Your task to perform on an android device: Add duracell triple a to the cart on bestbuy, then select checkout. Image 0: 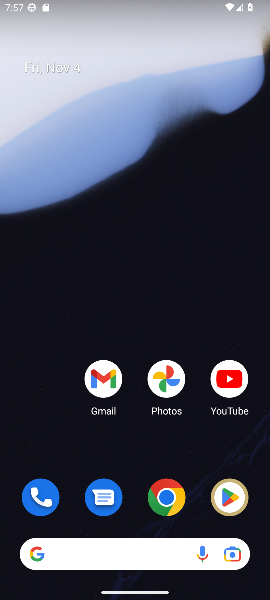
Step 0: click (168, 509)
Your task to perform on an android device: Add duracell triple a to the cart on bestbuy, then select checkout. Image 1: 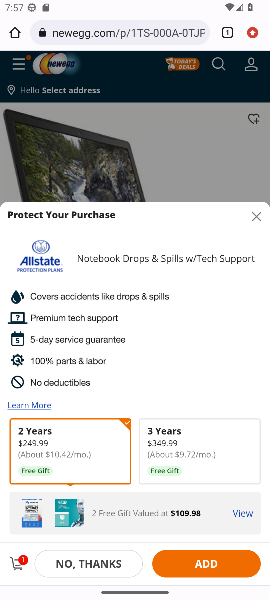
Step 1: click (112, 26)
Your task to perform on an android device: Add duracell triple a to the cart on bestbuy, then select checkout. Image 2: 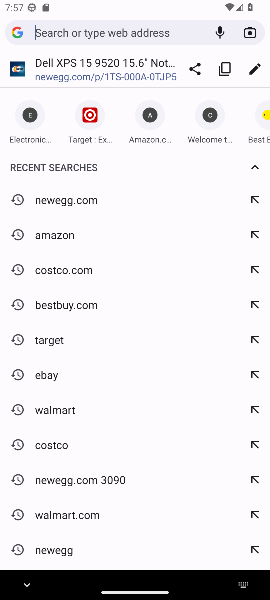
Step 2: click (53, 311)
Your task to perform on an android device: Add duracell triple a to the cart on bestbuy, then select checkout. Image 3: 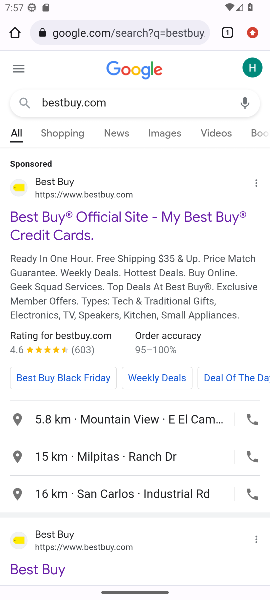
Step 3: drag from (71, 514) to (69, 265)
Your task to perform on an android device: Add duracell triple a to the cart on bestbuy, then select checkout. Image 4: 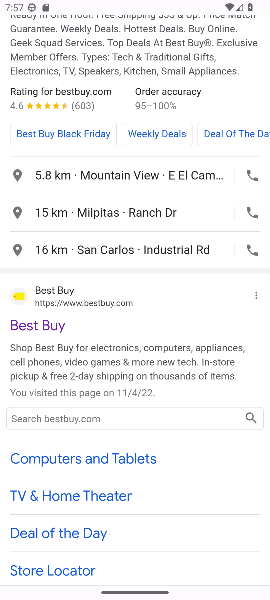
Step 4: click (36, 328)
Your task to perform on an android device: Add duracell triple a to the cart on bestbuy, then select checkout. Image 5: 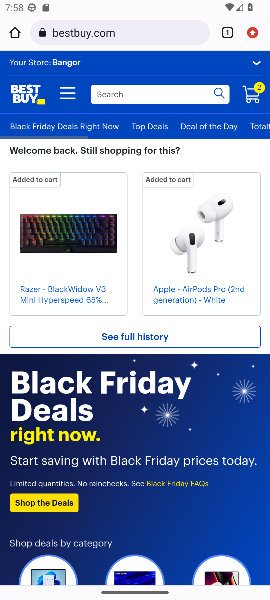
Step 5: click (139, 94)
Your task to perform on an android device: Add duracell triple a to the cart on bestbuy, then select checkout. Image 6: 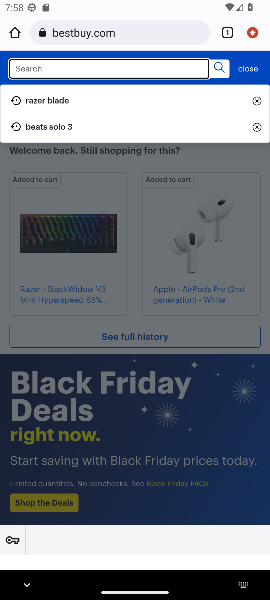
Step 6: type "duracell triple a"
Your task to perform on an android device: Add duracell triple a to the cart on bestbuy, then select checkout. Image 7: 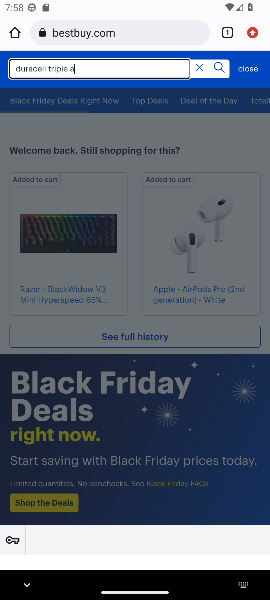
Step 7: click (220, 71)
Your task to perform on an android device: Add duracell triple a to the cart on bestbuy, then select checkout. Image 8: 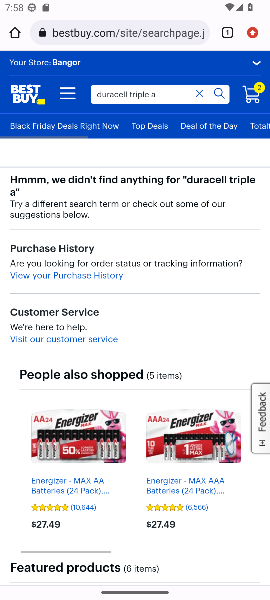
Step 8: task complete